Your task to perform on an android device: read, delete, or share a saved page in the chrome app Image 0: 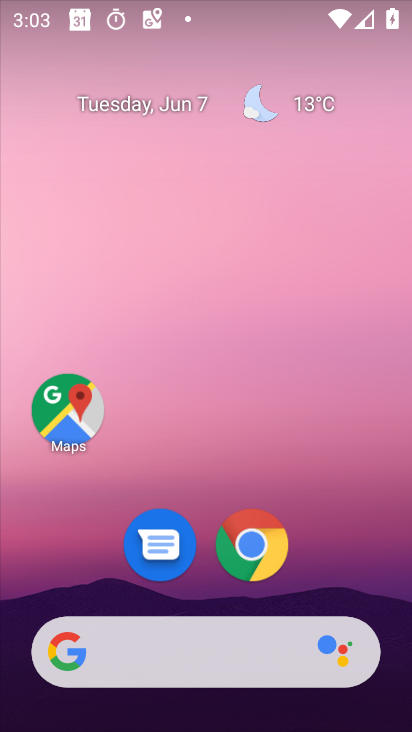
Step 0: click (271, 542)
Your task to perform on an android device: read, delete, or share a saved page in the chrome app Image 1: 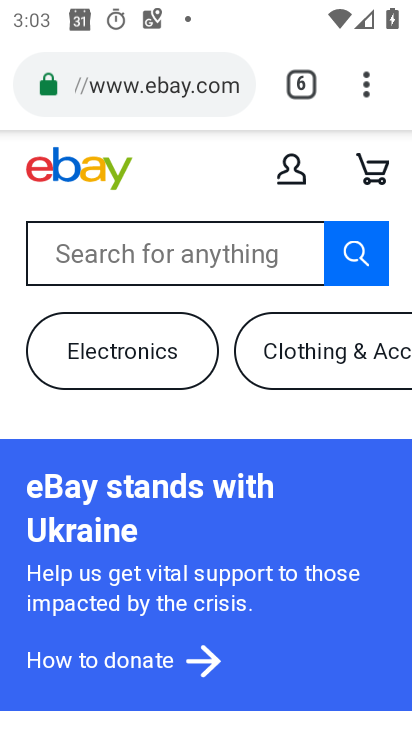
Step 1: click (369, 82)
Your task to perform on an android device: read, delete, or share a saved page in the chrome app Image 2: 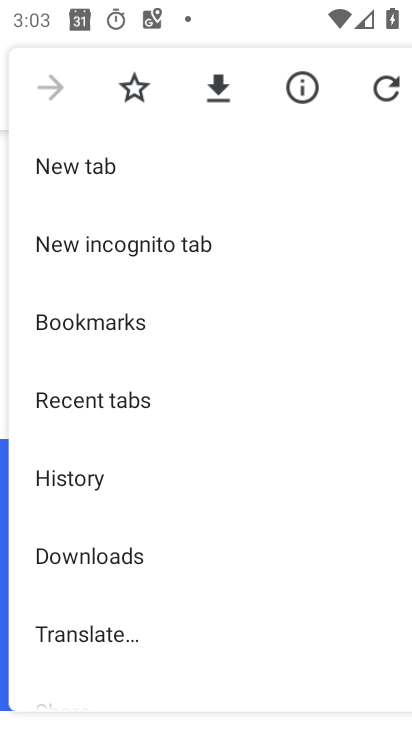
Step 2: click (126, 557)
Your task to perform on an android device: read, delete, or share a saved page in the chrome app Image 3: 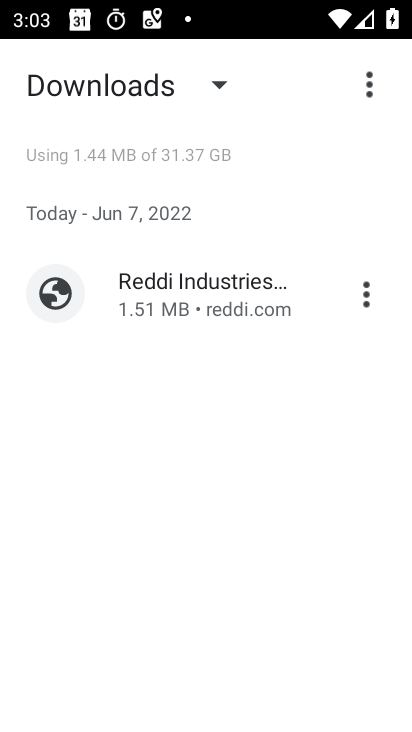
Step 3: click (68, 78)
Your task to perform on an android device: read, delete, or share a saved page in the chrome app Image 4: 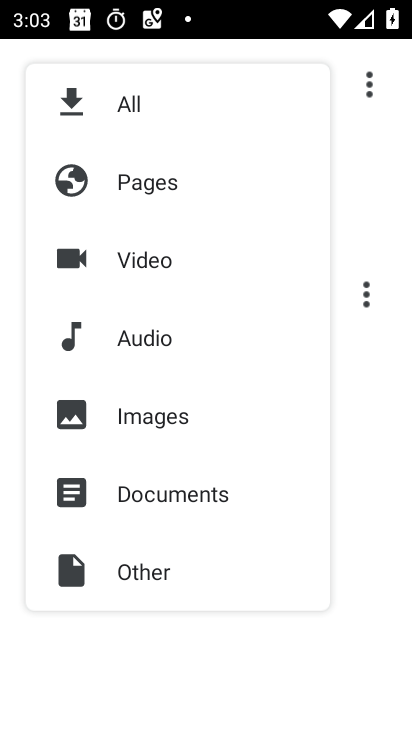
Step 4: click (180, 182)
Your task to perform on an android device: read, delete, or share a saved page in the chrome app Image 5: 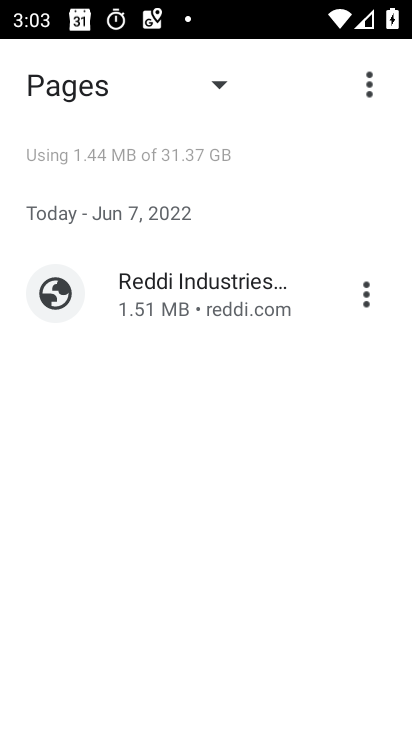
Step 5: click (202, 284)
Your task to perform on an android device: read, delete, or share a saved page in the chrome app Image 6: 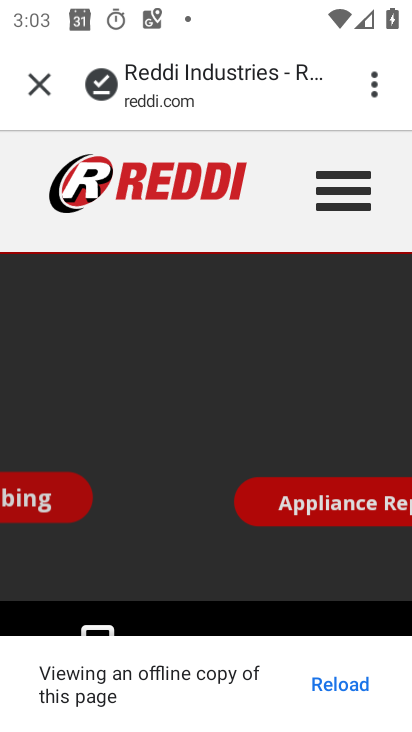
Step 6: click (385, 92)
Your task to perform on an android device: read, delete, or share a saved page in the chrome app Image 7: 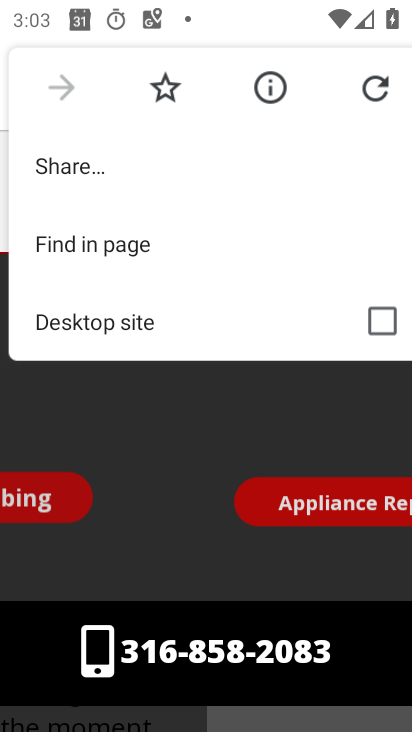
Step 7: click (61, 99)
Your task to perform on an android device: read, delete, or share a saved page in the chrome app Image 8: 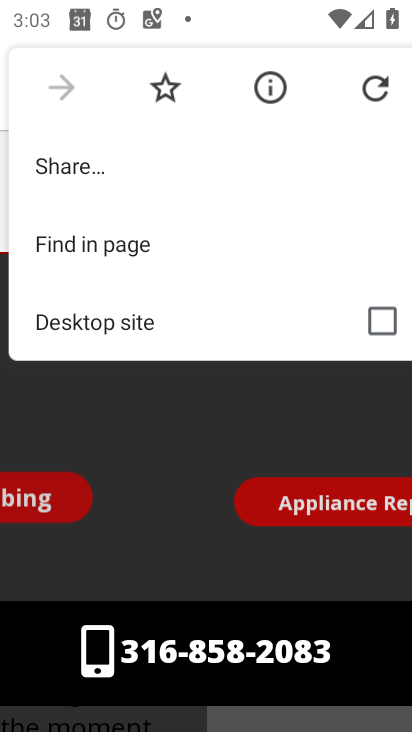
Step 8: click (153, 450)
Your task to perform on an android device: read, delete, or share a saved page in the chrome app Image 9: 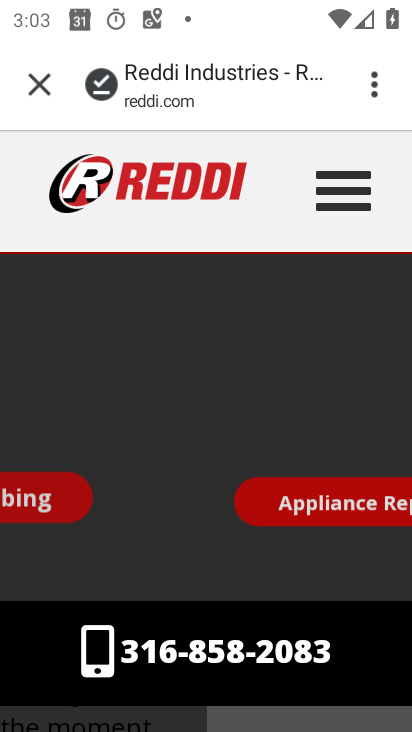
Step 9: click (44, 90)
Your task to perform on an android device: read, delete, or share a saved page in the chrome app Image 10: 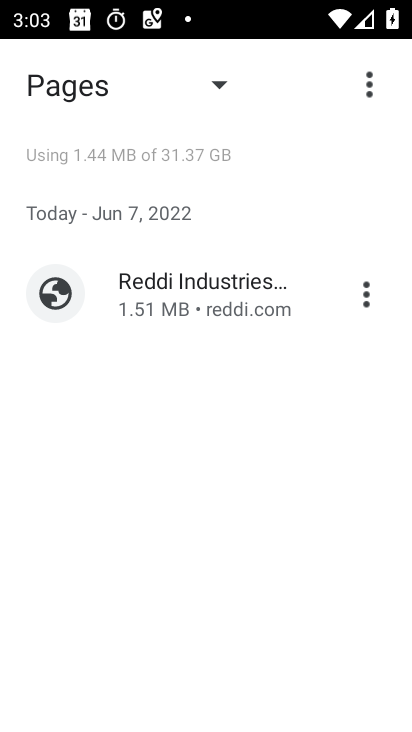
Step 10: click (371, 289)
Your task to perform on an android device: read, delete, or share a saved page in the chrome app Image 11: 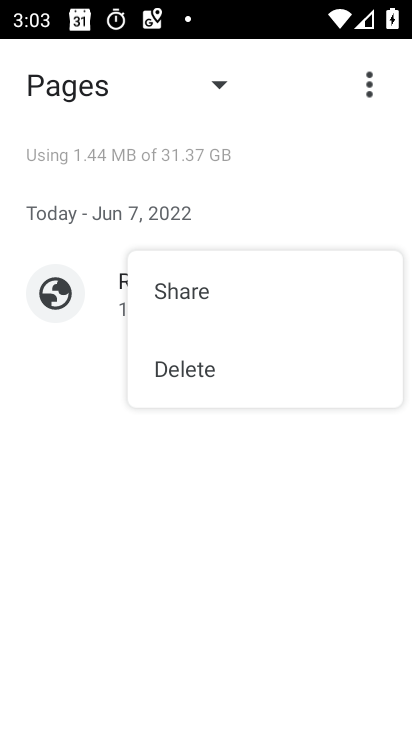
Step 11: click (240, 363)
Your task to perform on an android device: read, delete, or share a saved page in the chrome app Image 12: 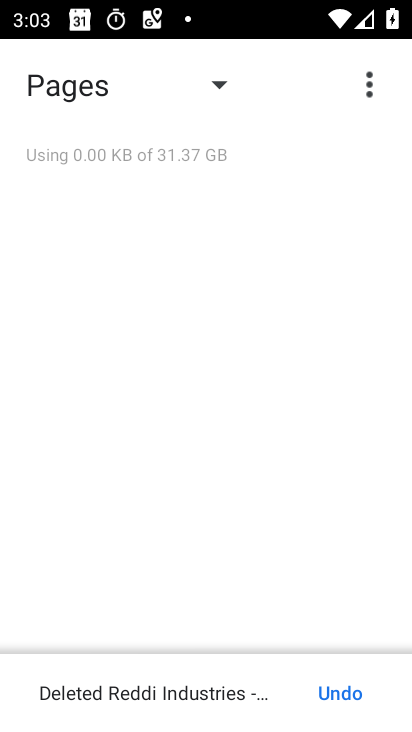
Step 12: task complete